Your task to perform on an android device: Open the Play Movies app and select the watchlist tab. Image 0: 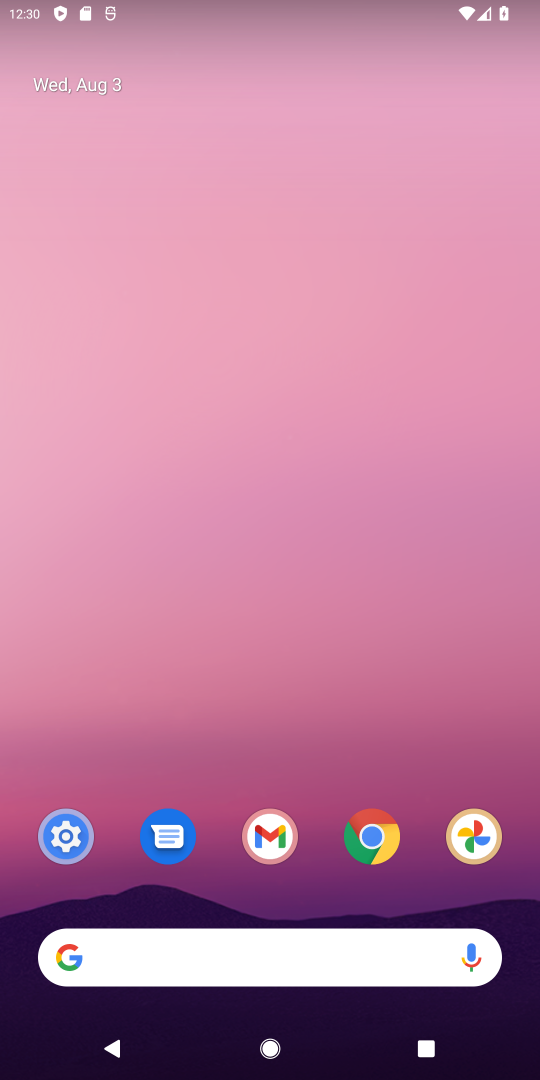
Step 0: drag from (208, 890) to (298, 403)
Your task to perform on an android device: Open the Play Movies app and select the watchlist tab. Image 1: 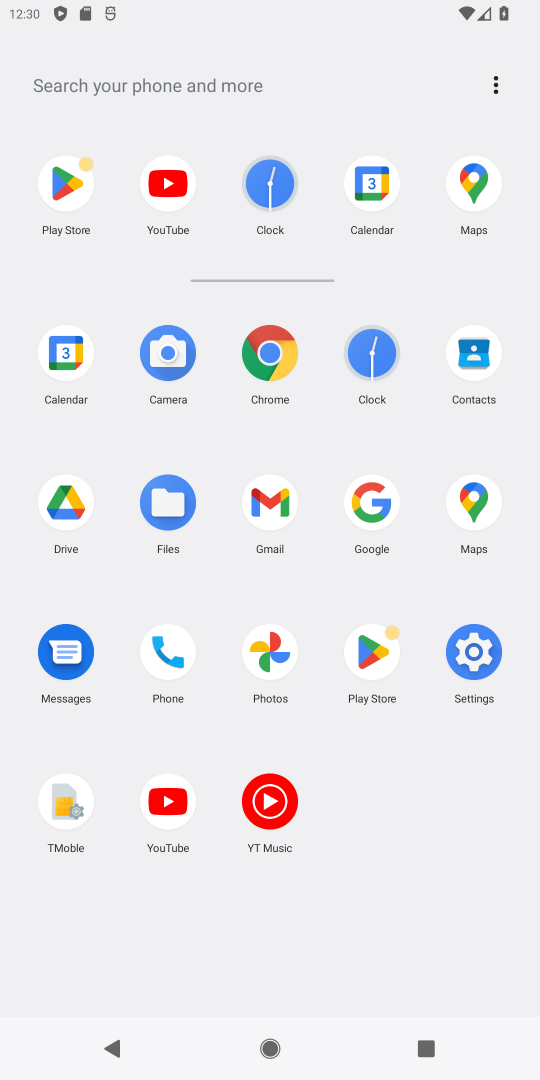
Step 1: task complete